Your task to perform on an android device: toggle sleep mode Image 0: 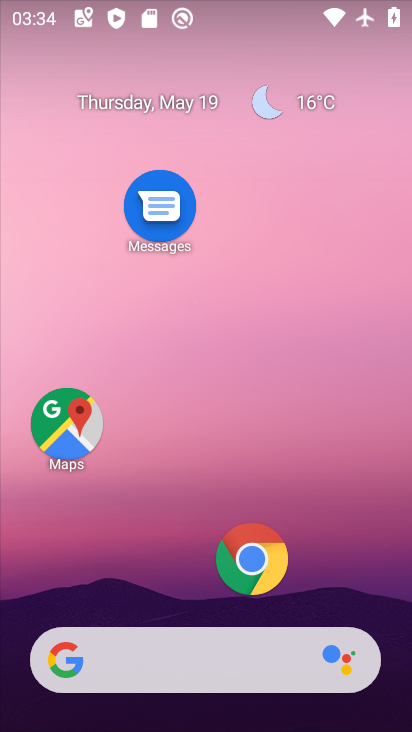
Step 0: drag from (197, 599) to (227, 240)
Your task to perform on an android device: toggle sleep mode Image 1: 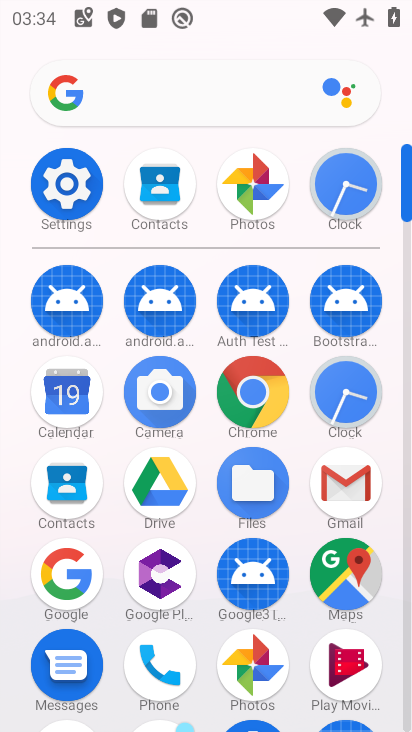
Step 1: click (83, 202)
Your task to perform on an android device: toggle sleep mode Image 2: 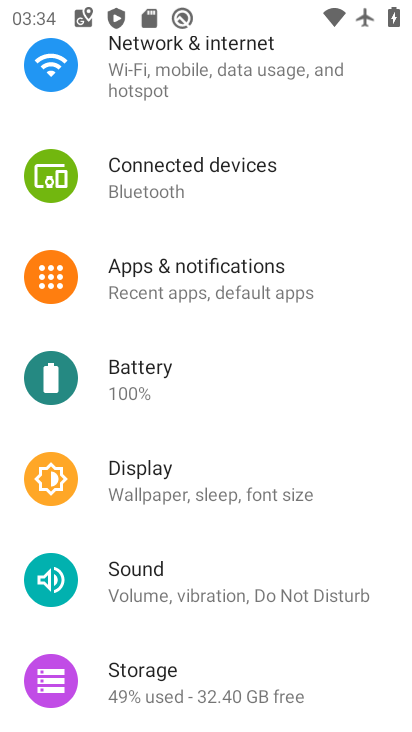
Step 2: drag from (172, 266) to (224, 400)
Your task to perform on an android device: toggle sleep mode Image 3: 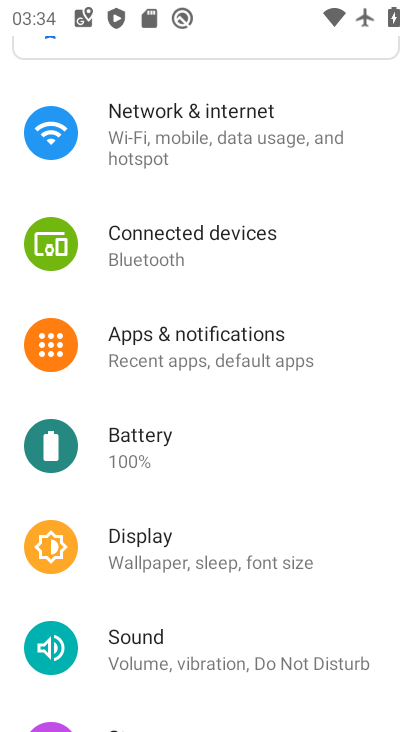
Step 3: click (199, 540)
Your task to perform on an android device: toggle sleep mode Image 4: 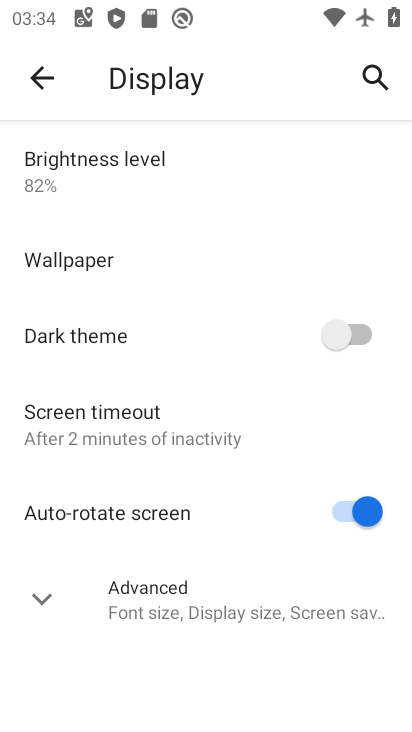
Step 4: click (182, 431)
Your task to perform on an android device: toggle sleep mode Image 5: 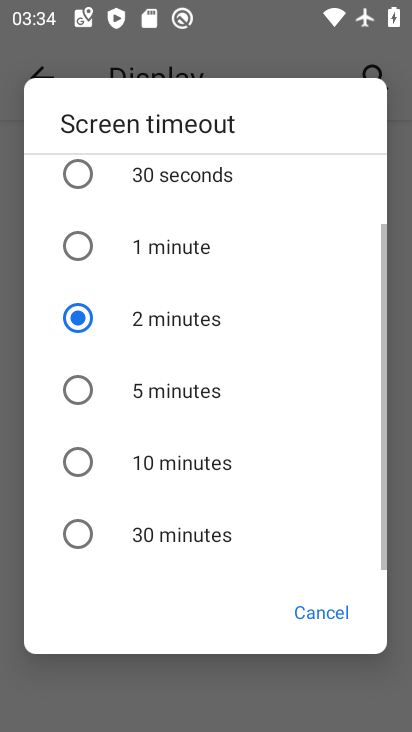
Step 5: click (182, 474)
Your task to perform on an android device: toggle sleep mode Image 6: 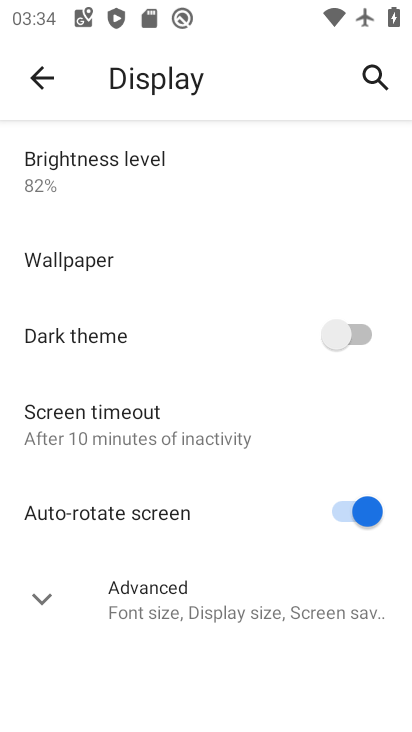
Step 6: task complete